Your task to perform on an android device: Add bose soundlink mini to the cart on amazon Image 0: 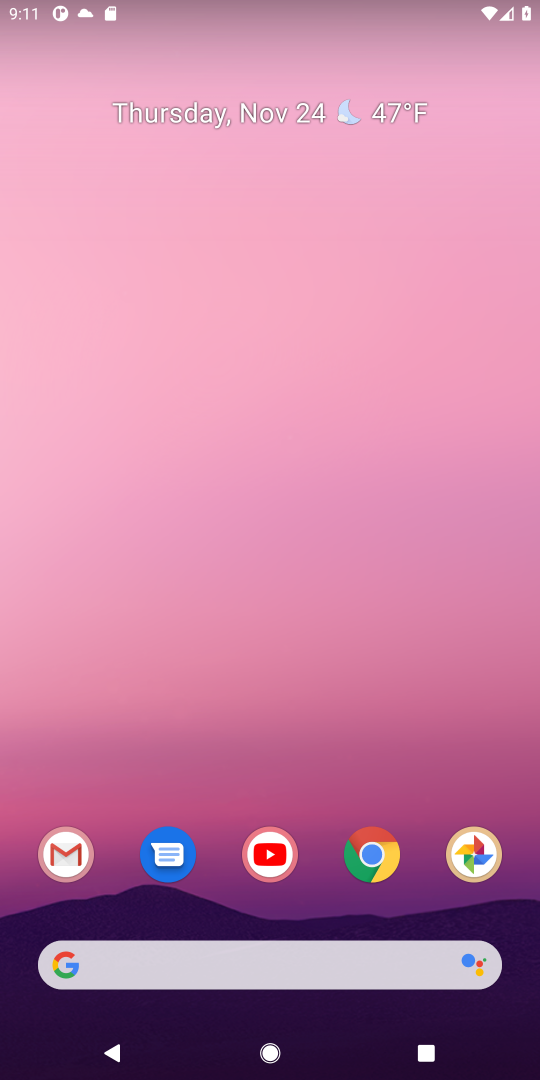
Step 0: click (372, 865)
Your task to perform on an android device: Add bose soundlink mini to the cart on amazon Image 1: 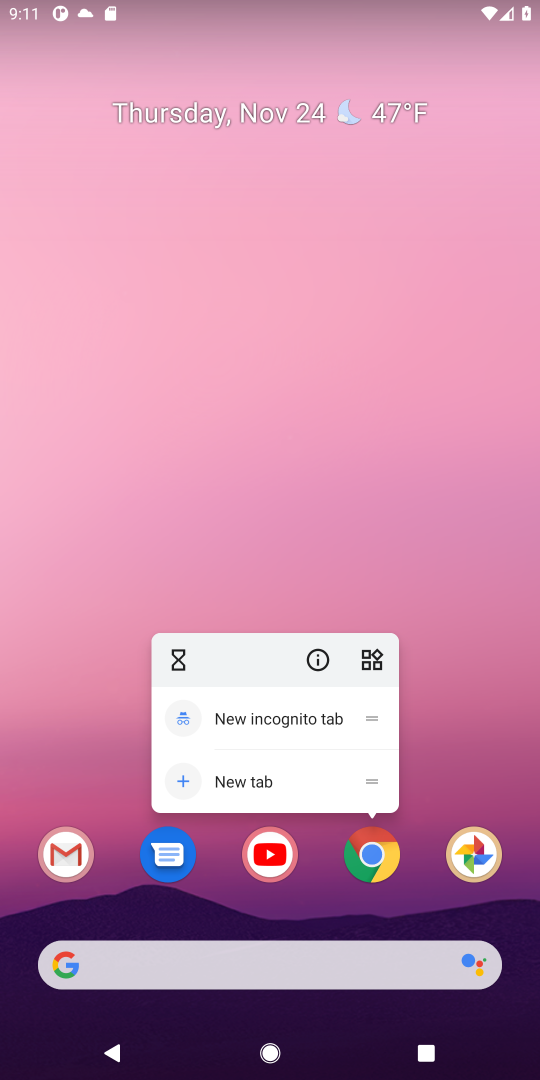
Step 1: click (372, 865)
Your task to perform on an android device: Add bose soundlink mini to the cart on amazon Image 2: 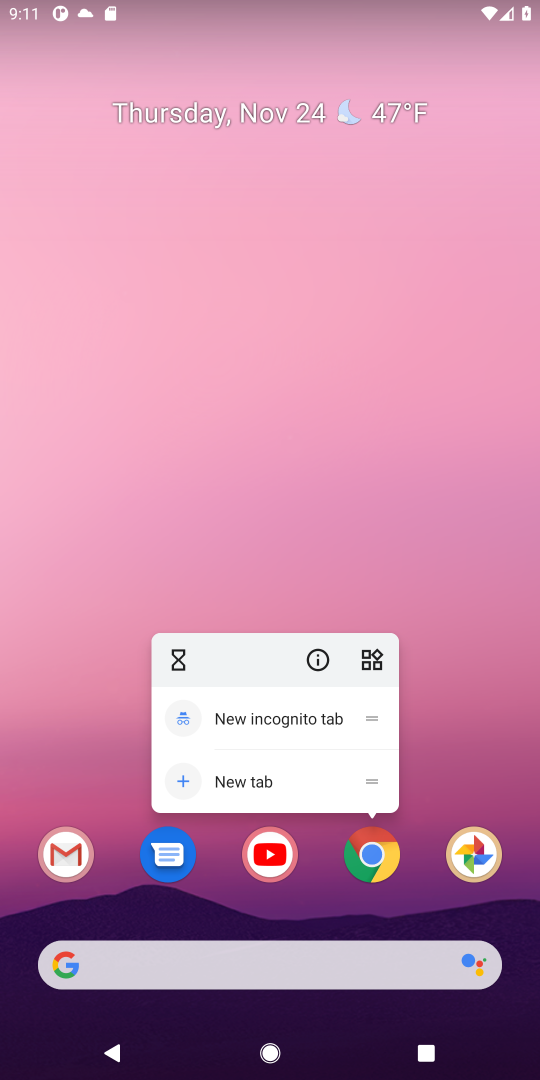
Step 2: click (380, 852)
Your task to perform on an android device: Add bose soundlink mini to the cart on amazon Image 3: 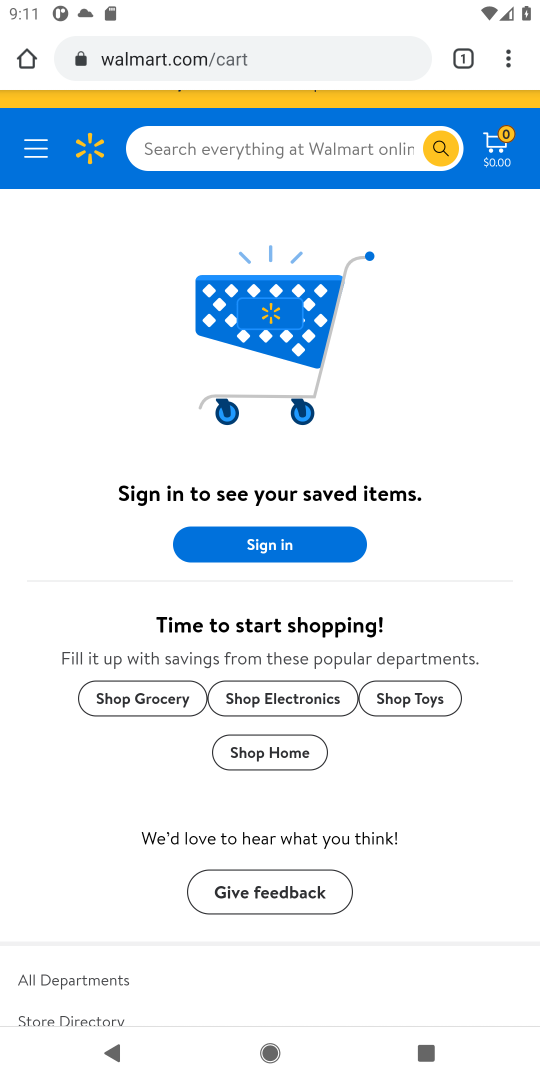
Step 3: click (186, 66)
Your task to perform on an android device: Add bose soundlink mini to the cart on amazon Image 4: 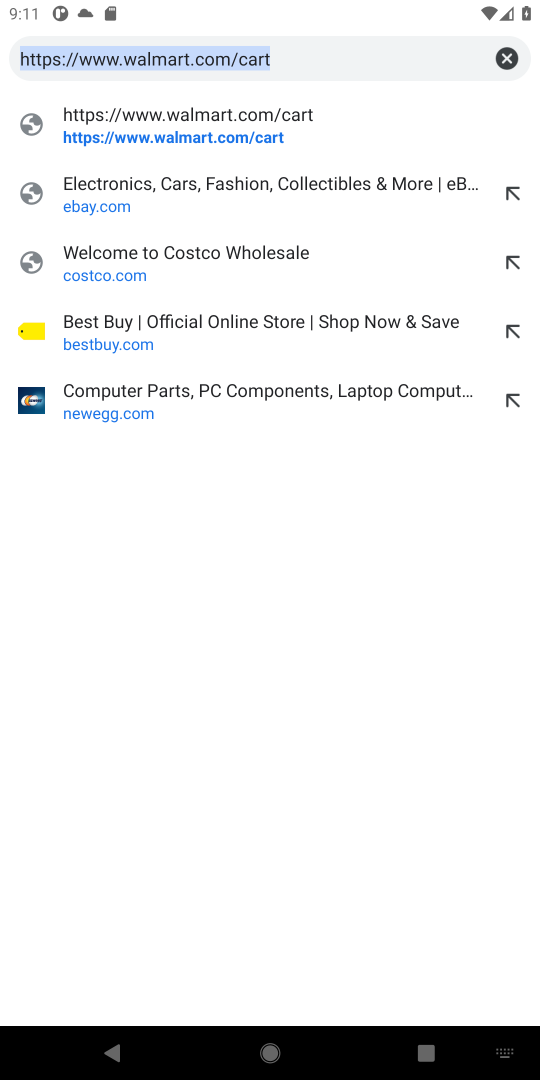
Step 4: type "amzon.com"
Your task to perform on an android device: Add bose soundlink mini to the cart on amazon Image 5: 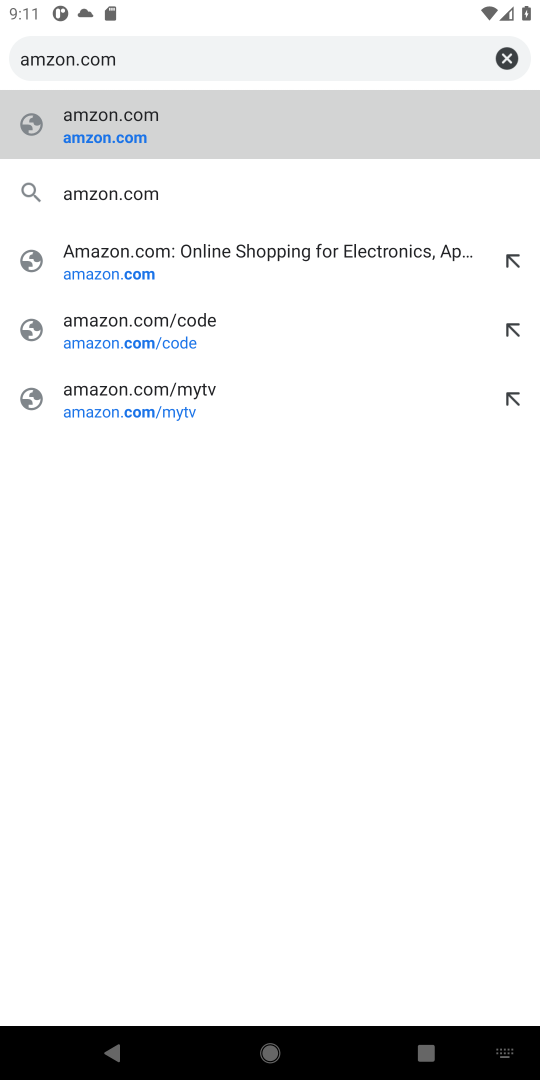
Step 5: click (114, 138)
Your task to perform on an android device: Add bose soundlink mini to the cart on amazon Image 6: 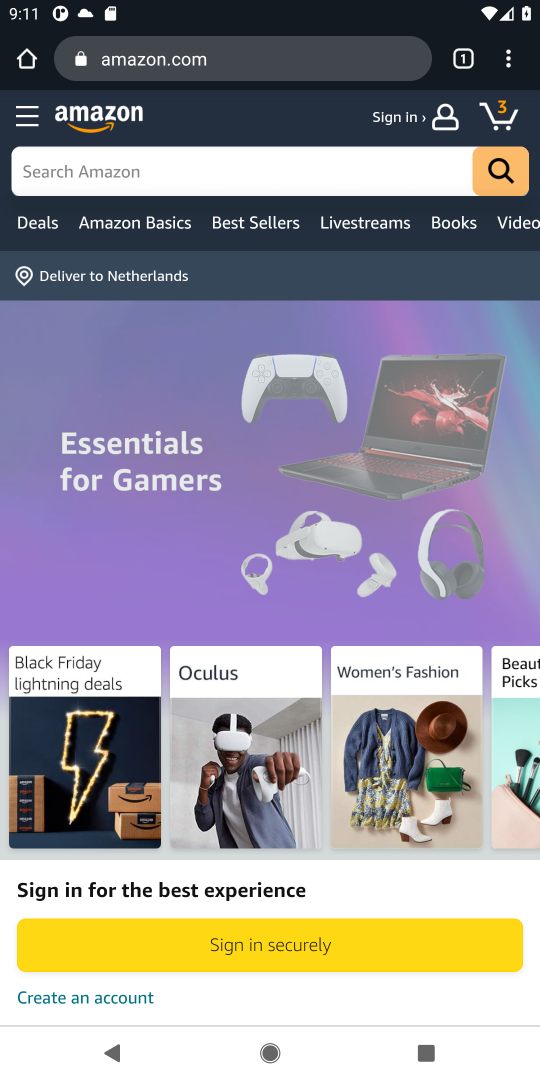
Step 6: click (46, 177)
Your task to perform on an android device: Add bose soundlink mini to the cart on amazon Image 7: 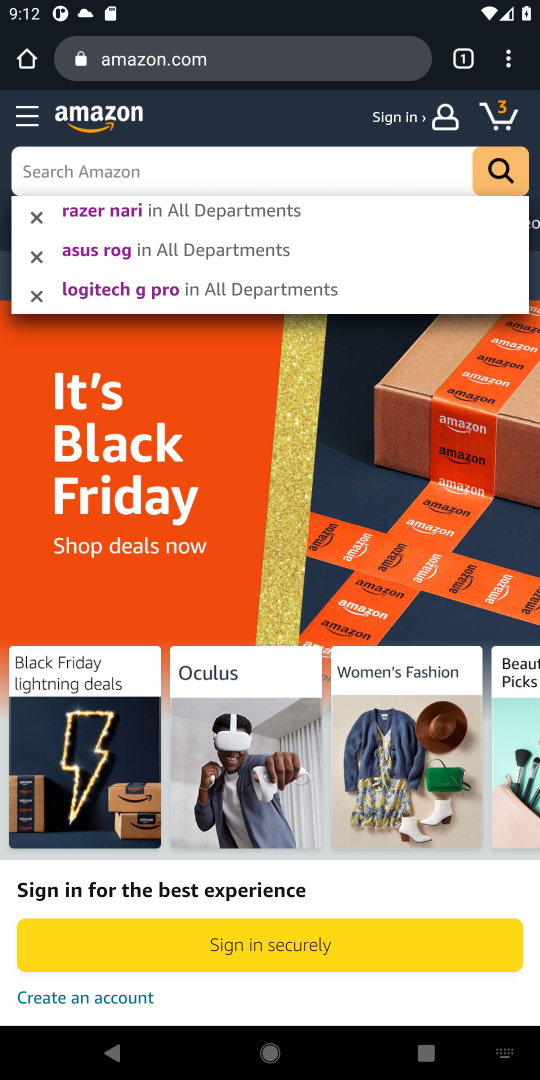
Step 7: type "bose soundlink mini "
Your task to perform on an android device: Add bose soundlink mini to the cart on amazon Image 8: 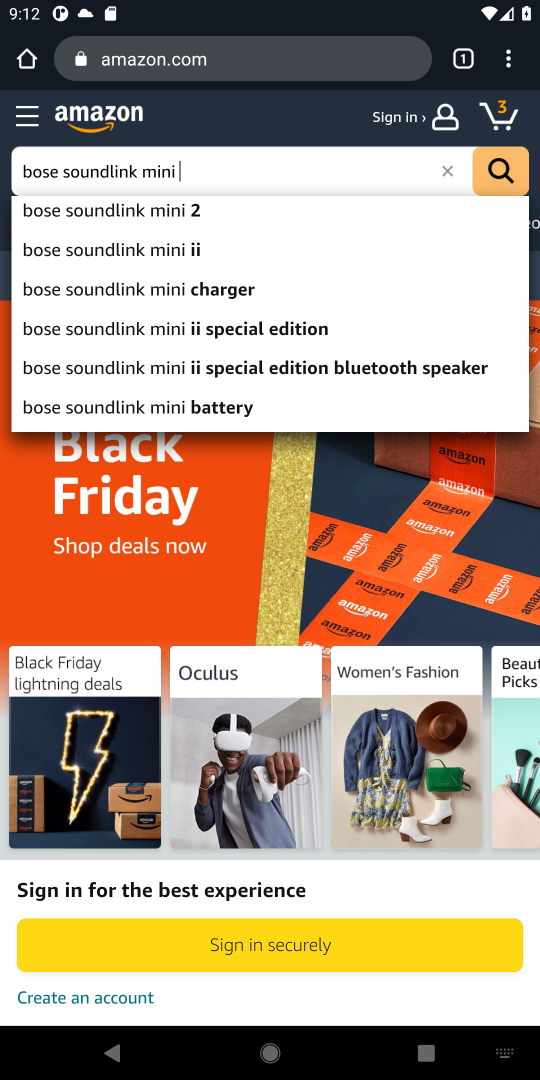
Step 8: click (157, 218)
Your task to perform on an android device: Add bose soundlink mini to the cart on amazon Image 9: 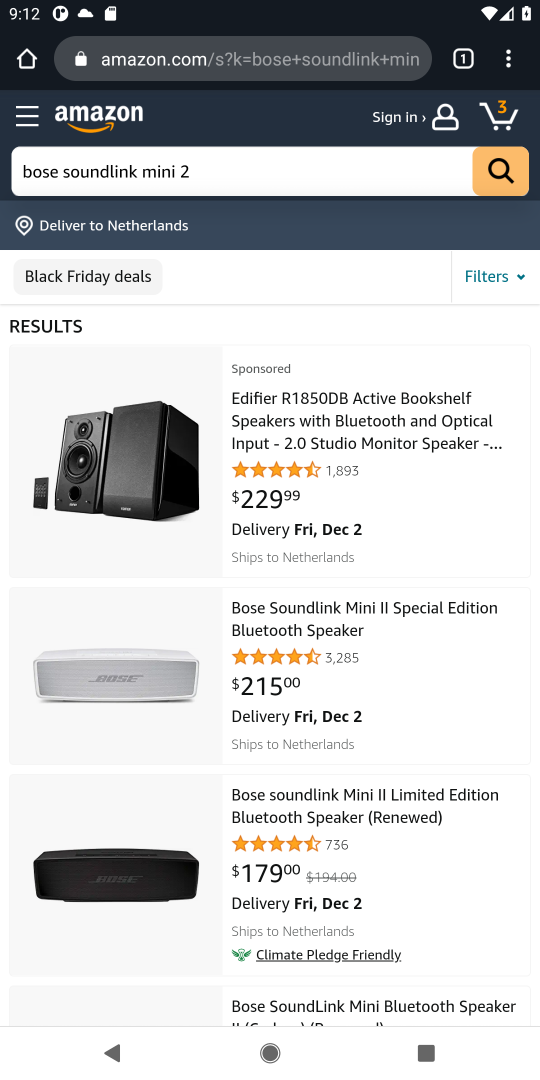
Step 9: click (136, 676)
Your task to perform on an android device: Add bose soundlink mini to the cart on amazon Image 10: 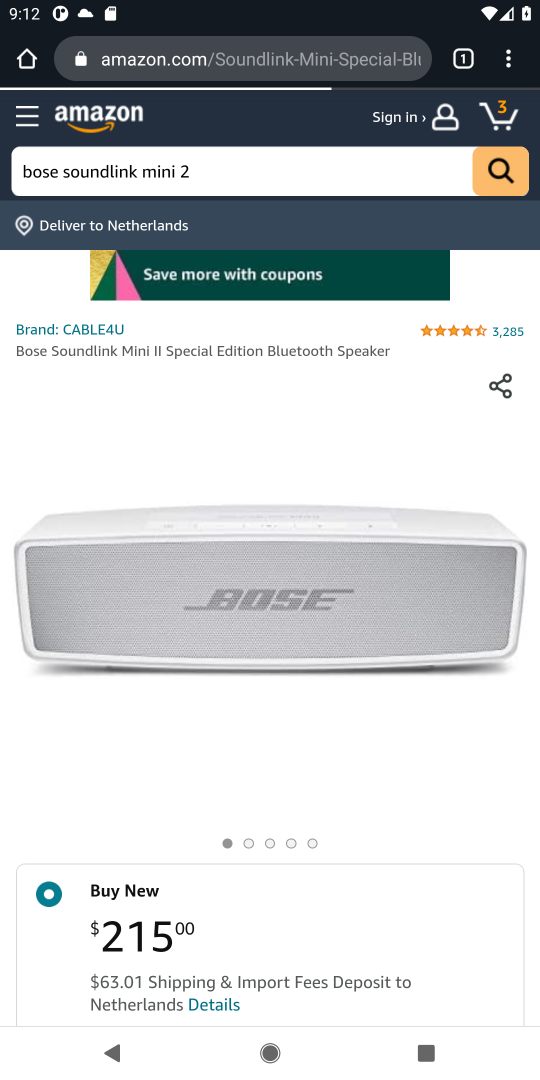
Step 10: drag from (208, 719) to (202, 285)
Your task to perform on an android device: Add bose soundlink mini to the cart on amazon Image 11: 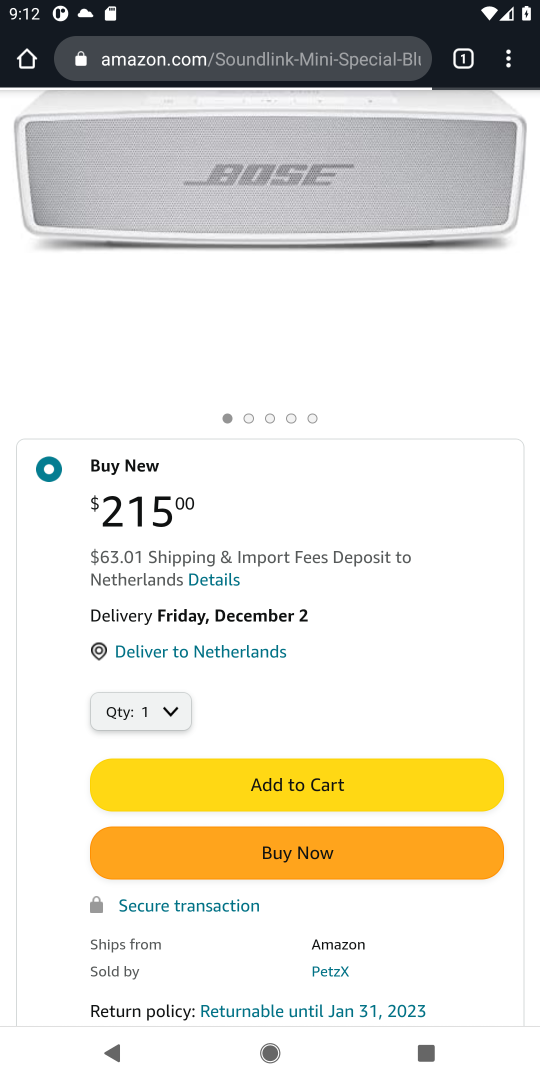
Step 11: click (285, 788)
Your task to perform on an android device: Add bose soundlink mini to the cart on amazon Image 12: 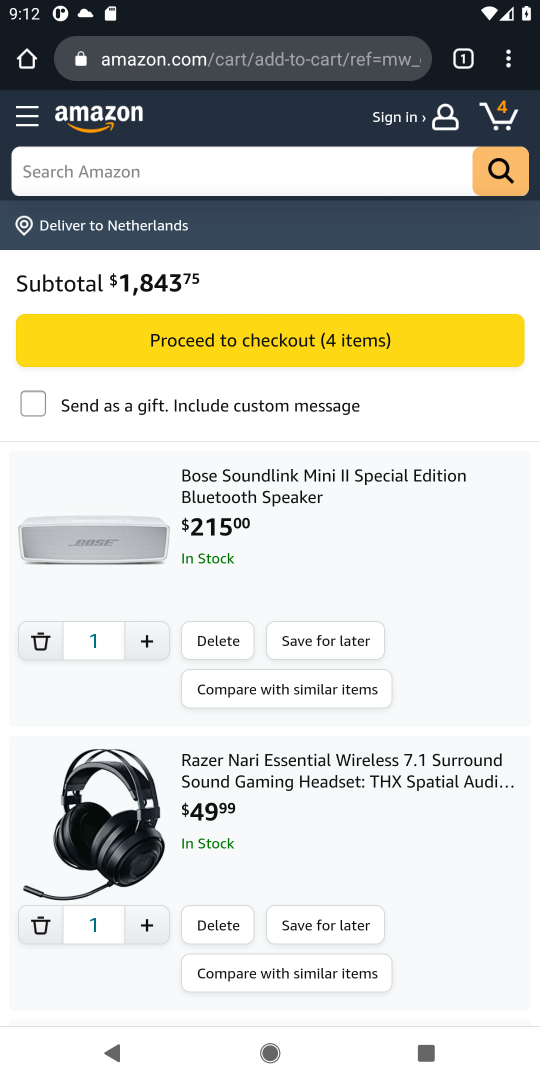
Step 12: task complete